Your task to perform on an android device: make emails show in primary in the gmail app Image 0: 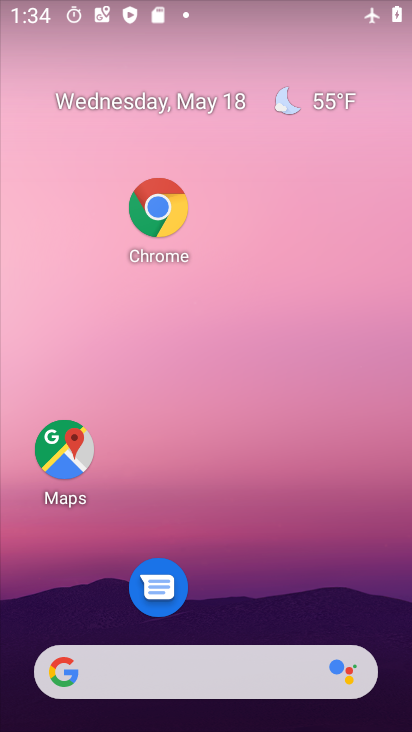
Step 0: press home button
Your task to perform on an android device: make emails show in primary in the gmail app Image 1: 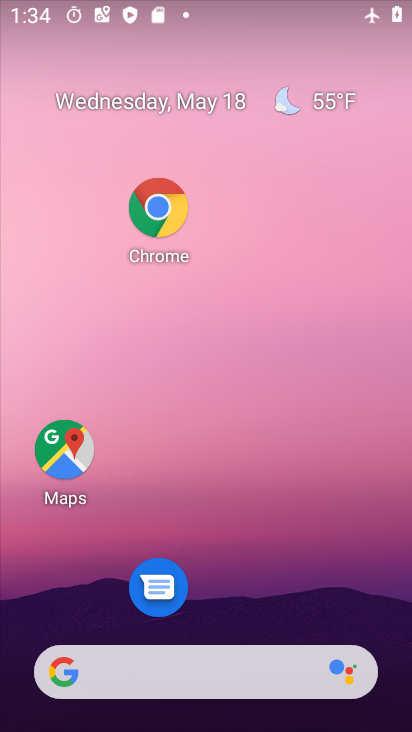
Step 1: drag from (285, 381) to (299, 166)
Your task to perform on an android device: make emails show in primary in the gmail app Image 2: 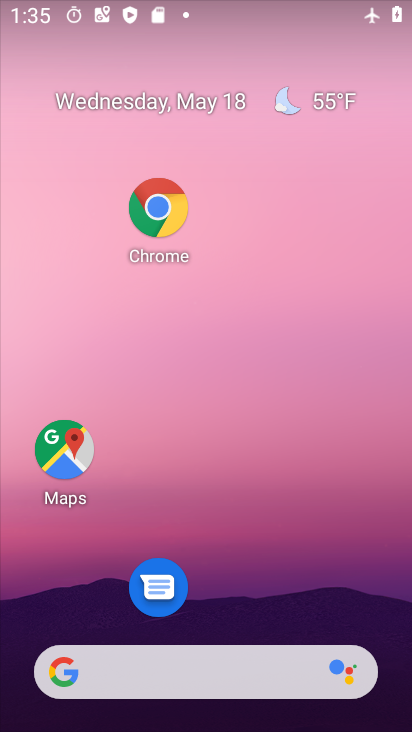
Step 2: drag from (267, 523) to (227, 153)
Your task to perform on an android device: make emails show in primary in the gmail app Image 3: 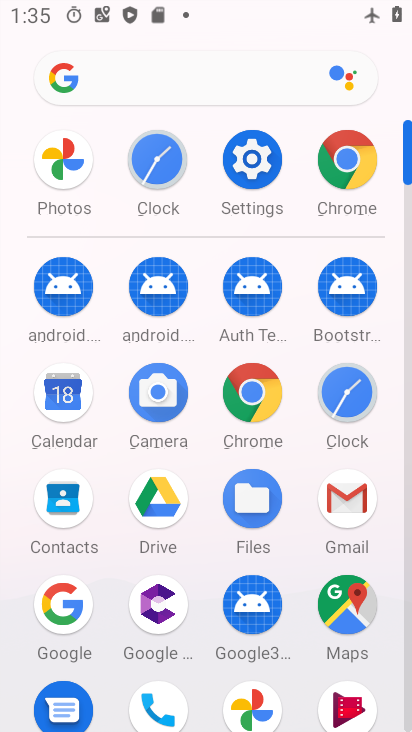
Step 3: click (348, 533)
Your task to perform on an android device: make emails show in primary in the gmail app Image 4: 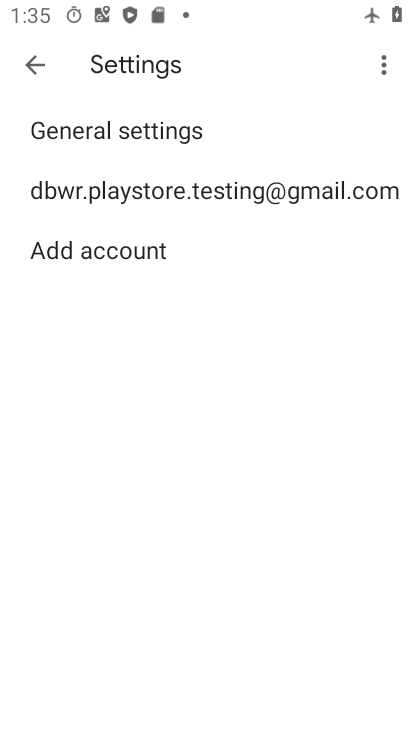
Step 4: click (222, 191)
Your task to perform on an android device: make emails show in primary in the gmail app Image 5: 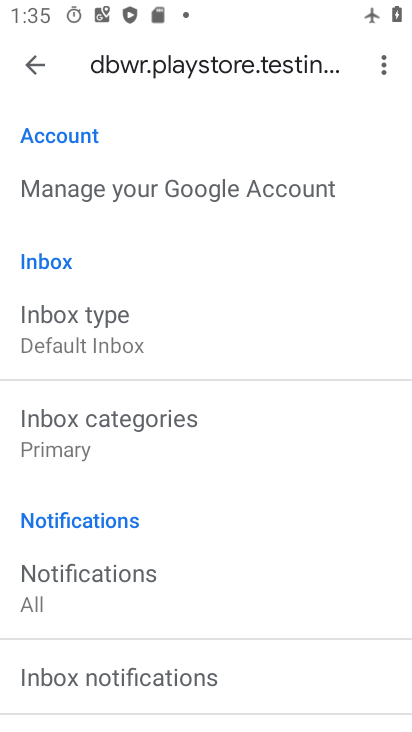
Step 5: task complete